Your task to perform on an android device: turn on javascript in the chrome app Image 0: 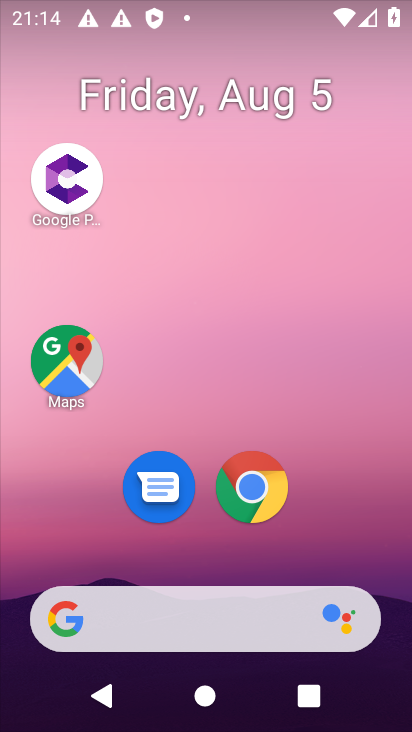
Step 0: click (236, 478)
Your task to perform on an android device: turn on javascript in the chrome app Image 1: 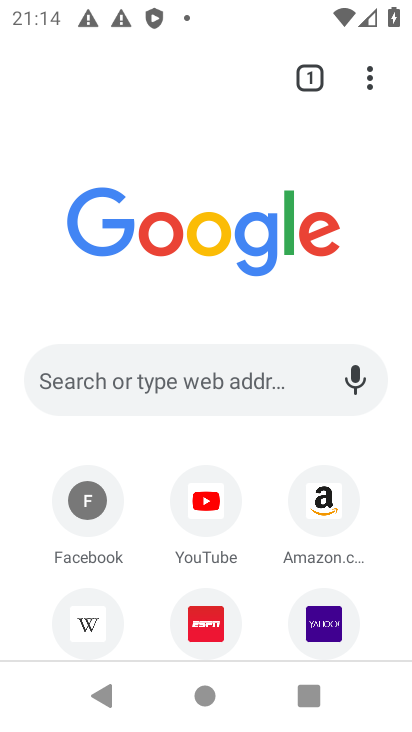
Step 1: click (370, 75)
Your task to perform on an android device: turn on javascript in the chrome app Image 2: 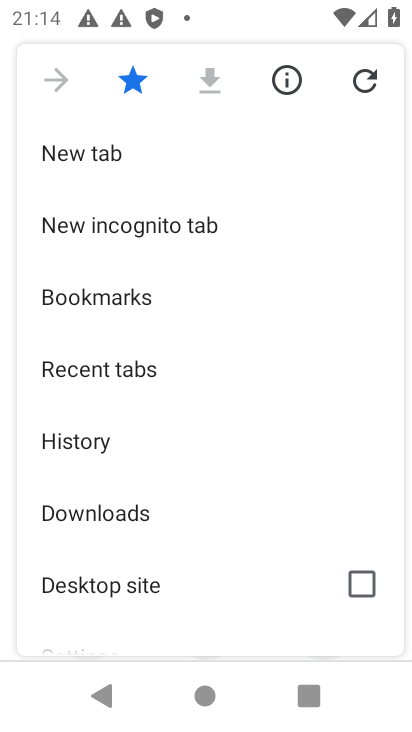
Step 2: drag from (194, 490) to (146, 145)
Your task to perform on an android device: turn on javascript in the chrome app Image 3: 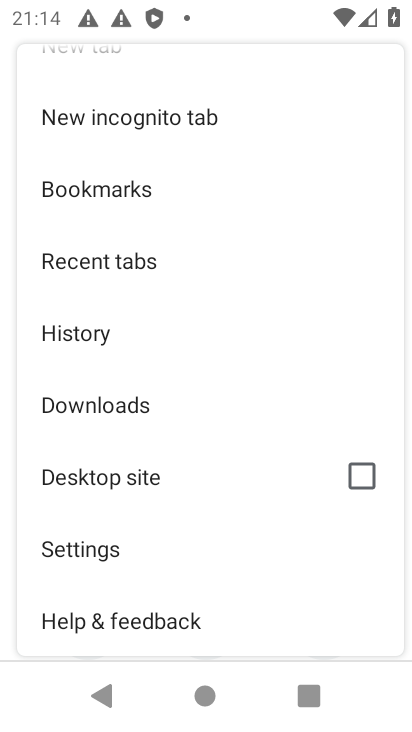
Step 3: click (79, 568)
Your task to perform on an android device: turn on javascript in the chrome app Image 4: 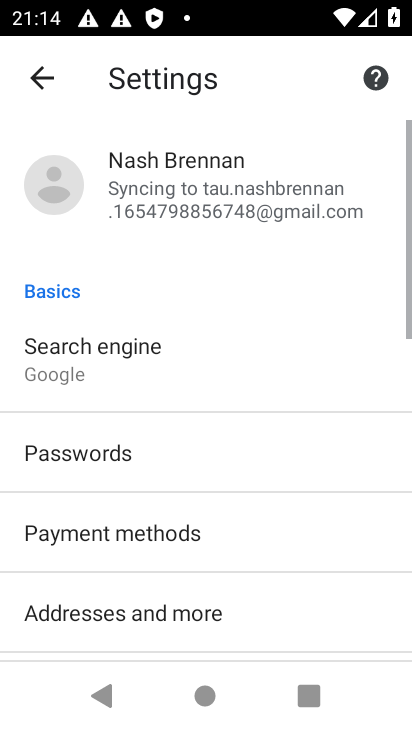
Step 4: drag from (79, 568) to (18, 29)
Your task to perform on an android device: turn on javascript in the chrome app Image 5: 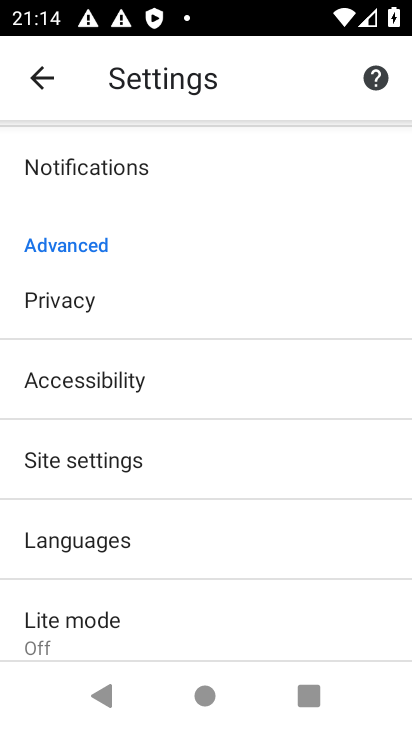
Step 5: click (99, 430)
Your task to perform on an android device: turn on javascript in the chrome app Image 6: 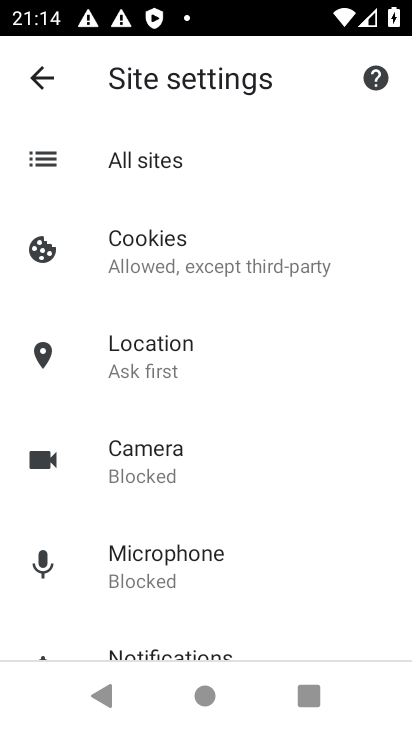
Step 6: drag from (254, 560) to (175, 120)
Your task to perform on an android device: turn on javascript in the chrome app Image 7: 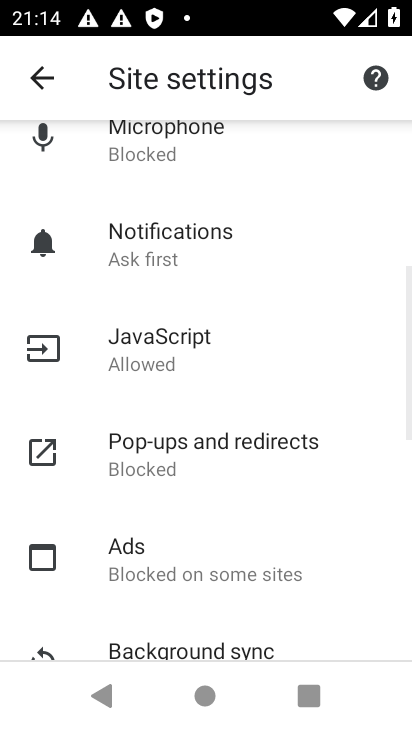
Step 7: click (138, 367)
Your task to perform on an android device: turn on javascript in the chrome app Image 8: 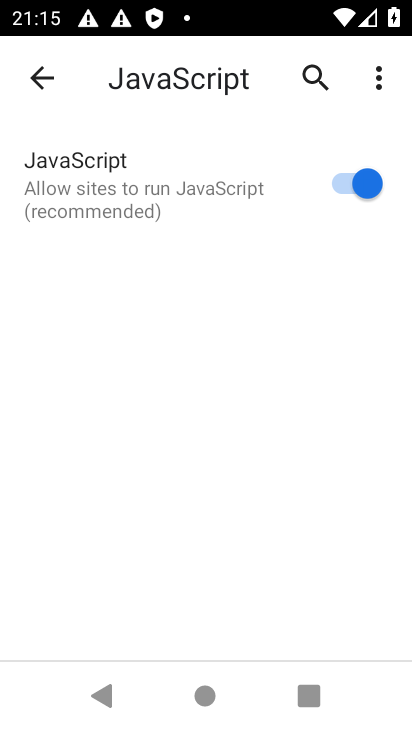
Step 8: task complete